Your task to perform on an android device: delete location history Image 0: 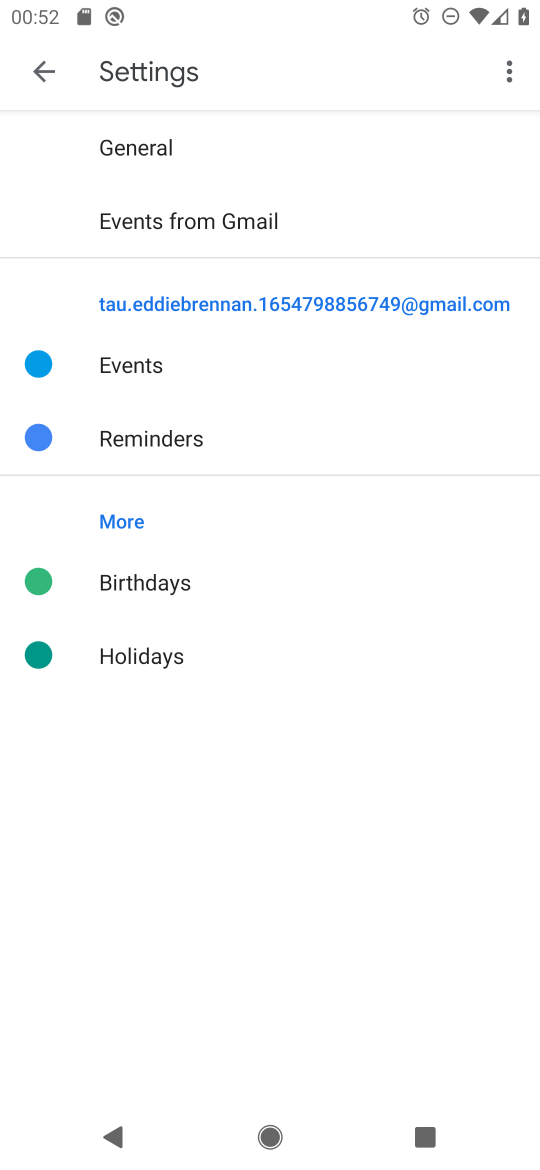
Step 0: press home button
Your task to perform on an android device: delete location history Image 1: 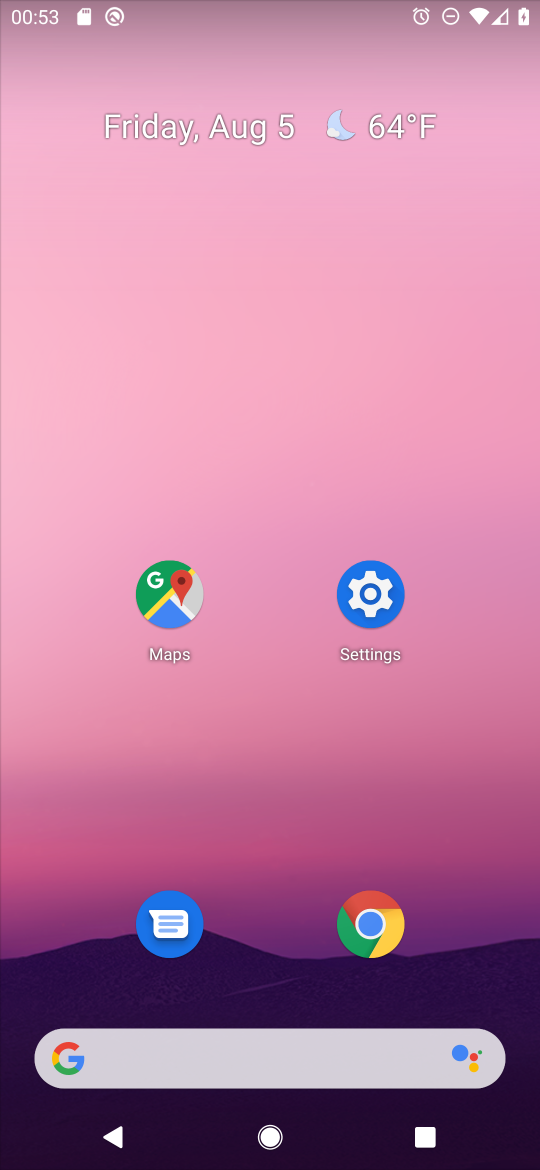
Step 1: click (166, 598)
Your task to perform on an android device: delete location history Image 2: 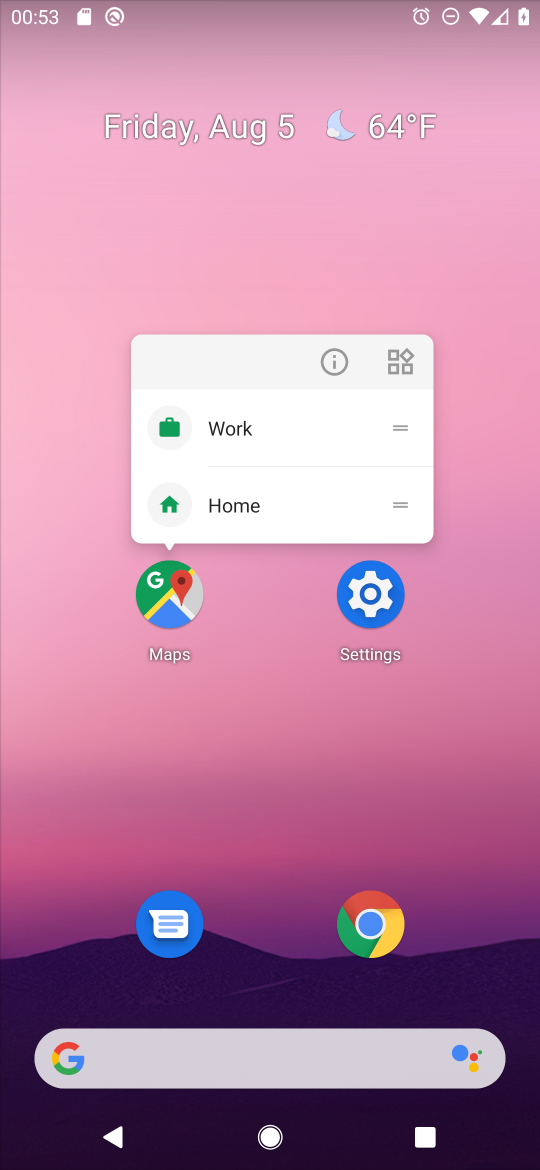
Step 2: click (166, 598)
Your task to perform on an android device: delete location history Image 3: 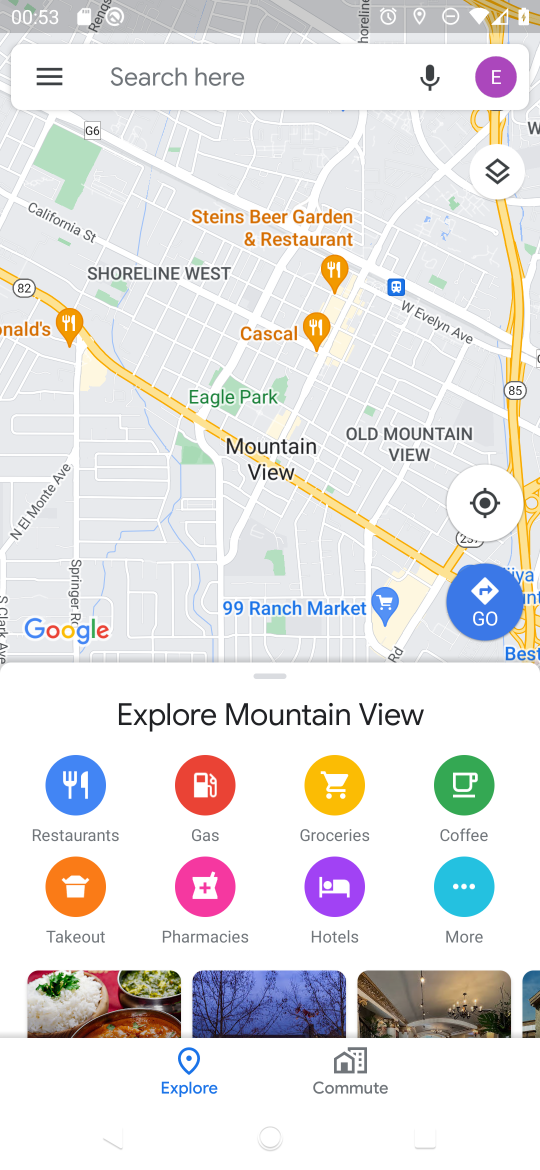
Step 3: click (51, 67)
Your task to perform on an android device: delete location history Image 4: 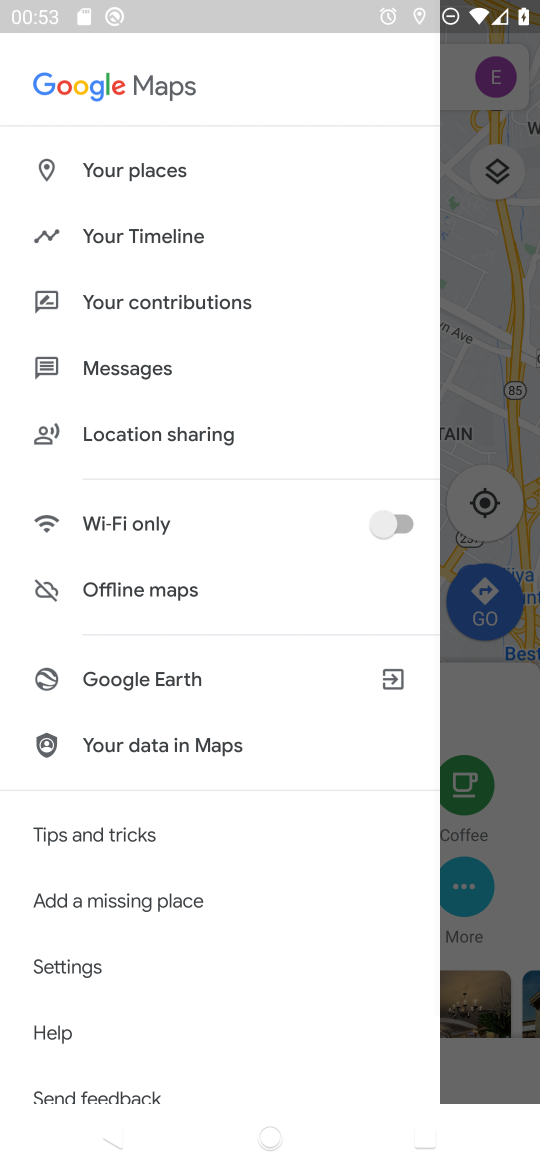
Step 4: click (158, 233)
Your task to perform on an android device: delete location history Image 5: 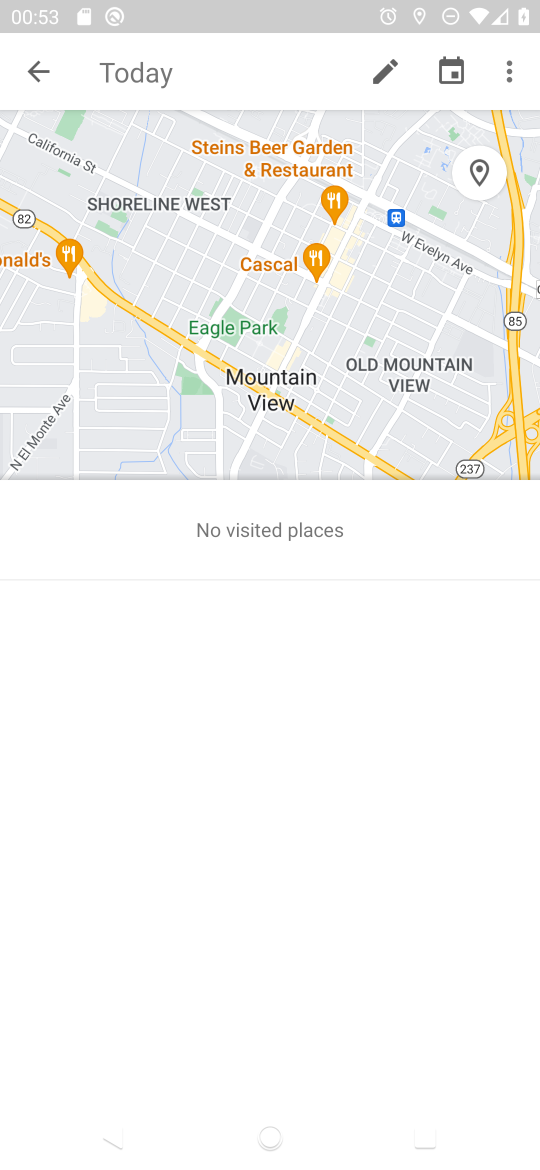
Step 5: click (511, 76)
Your task to perform on an android device: delete location history Image 6: 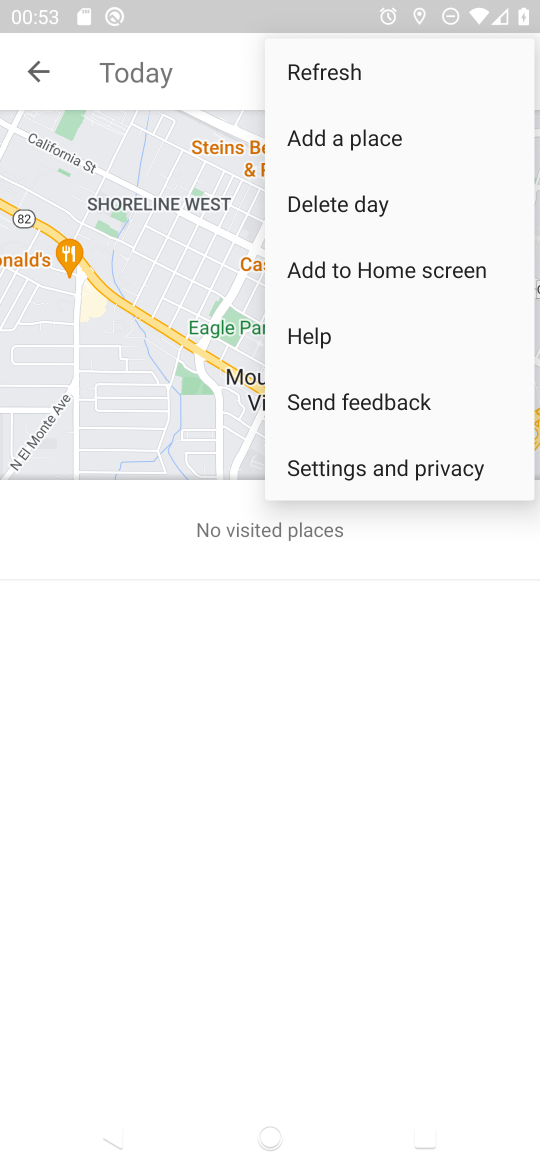
Step 6: click (375, 457)
Your task to perform on an android device: delete location history Image 7: 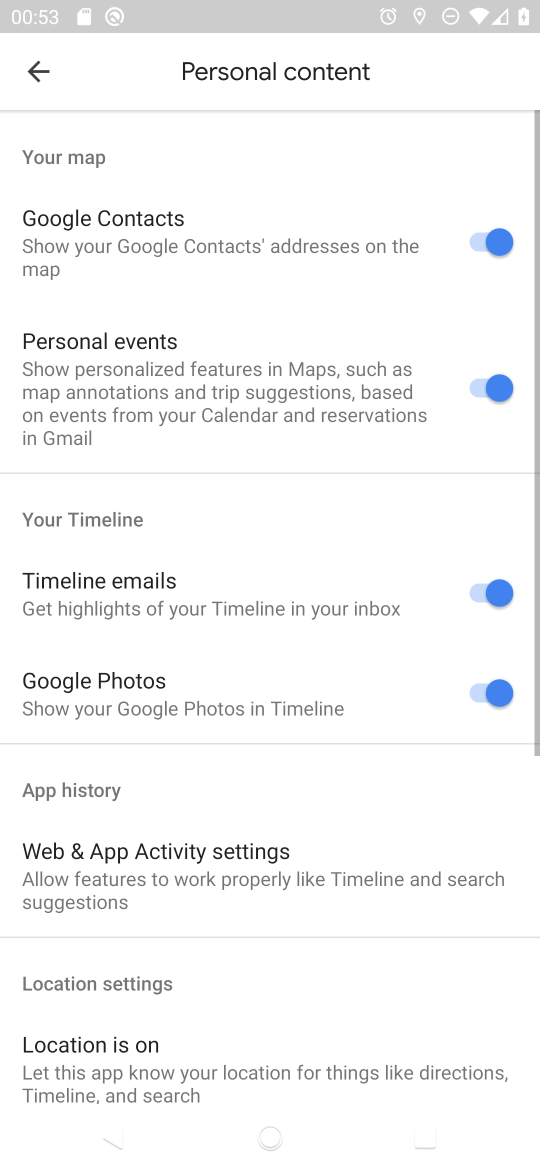
Step 7: drag from (259, 936) to (397, 209)
Your task to perform on an android device: delete location history Image 8: 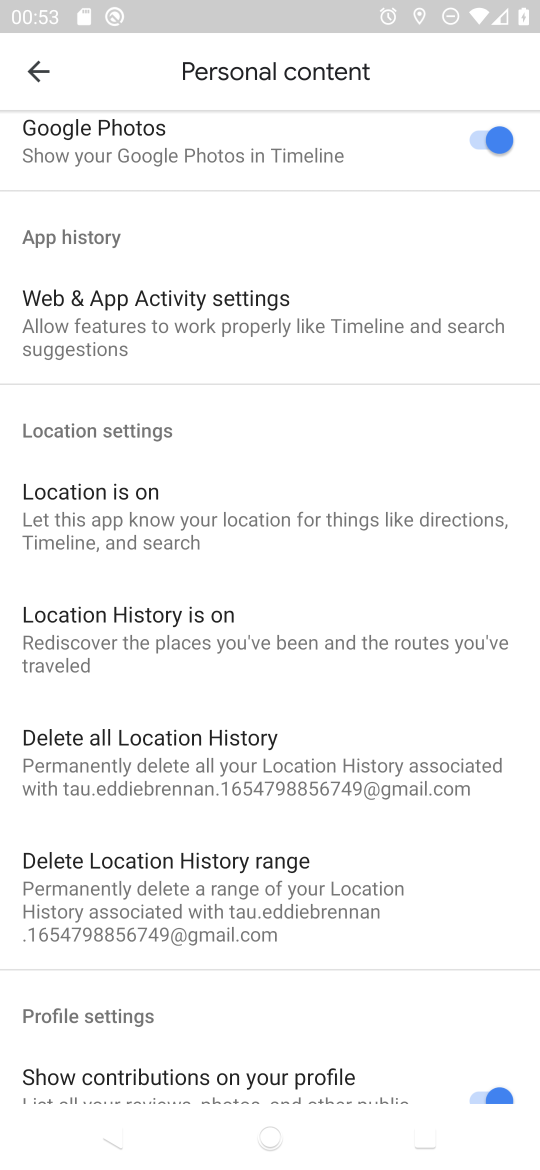
Step 8: click (155, 754)
Your task to perform on an android device: delete location history Image 9: 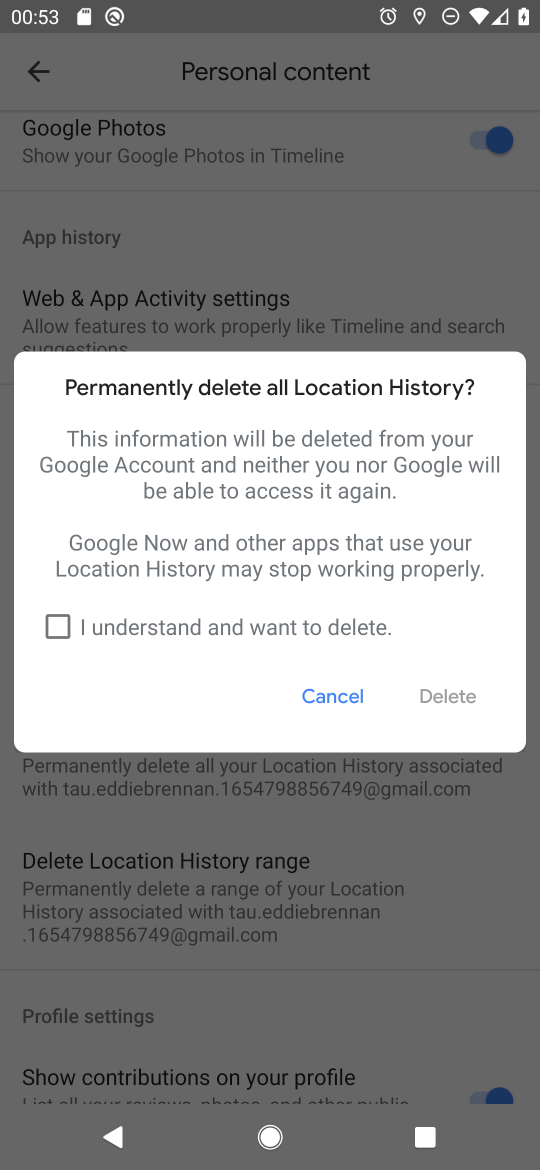
Step 9: click (59, 625)
Your task to perform on an android device: delete location history Image 10: 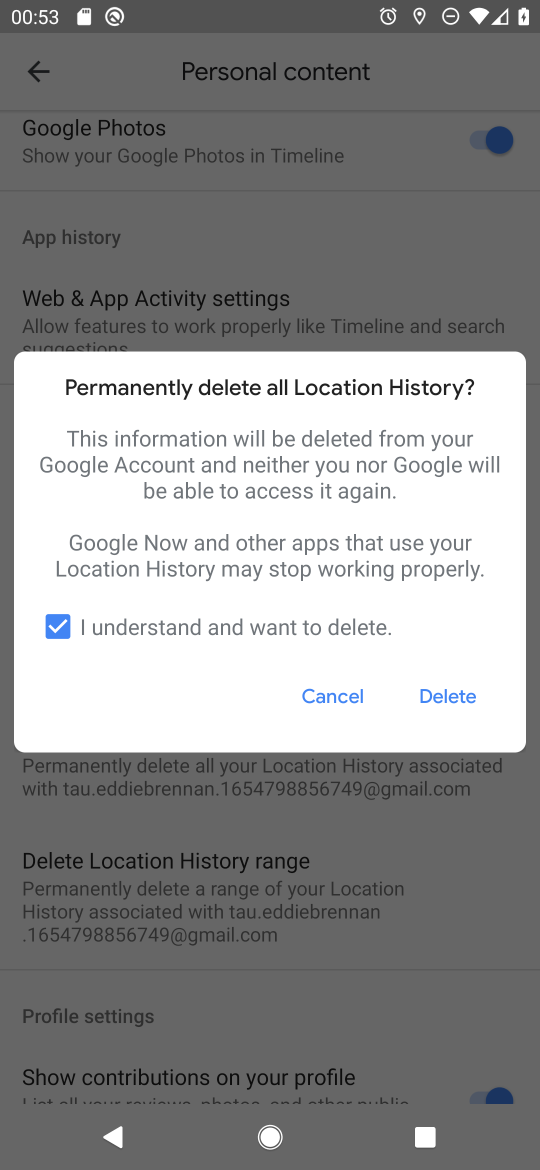
Step 10: click (468, 704)
Your task to perform on an android device: delete location history Image 11: 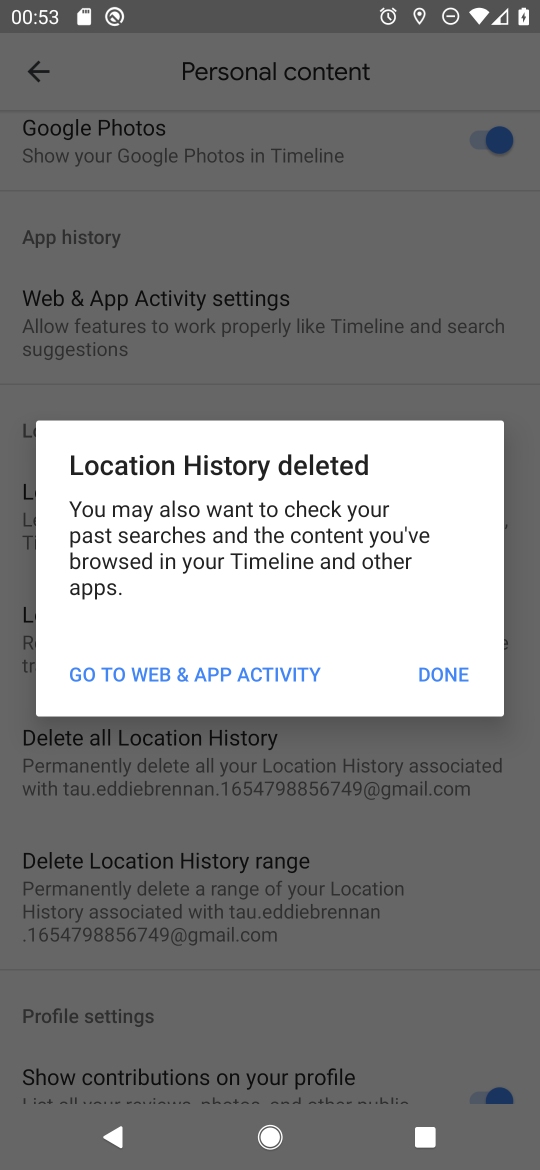
Step 11: click (464, 680)
Your task to perform on an android device: delete location history Image 12: 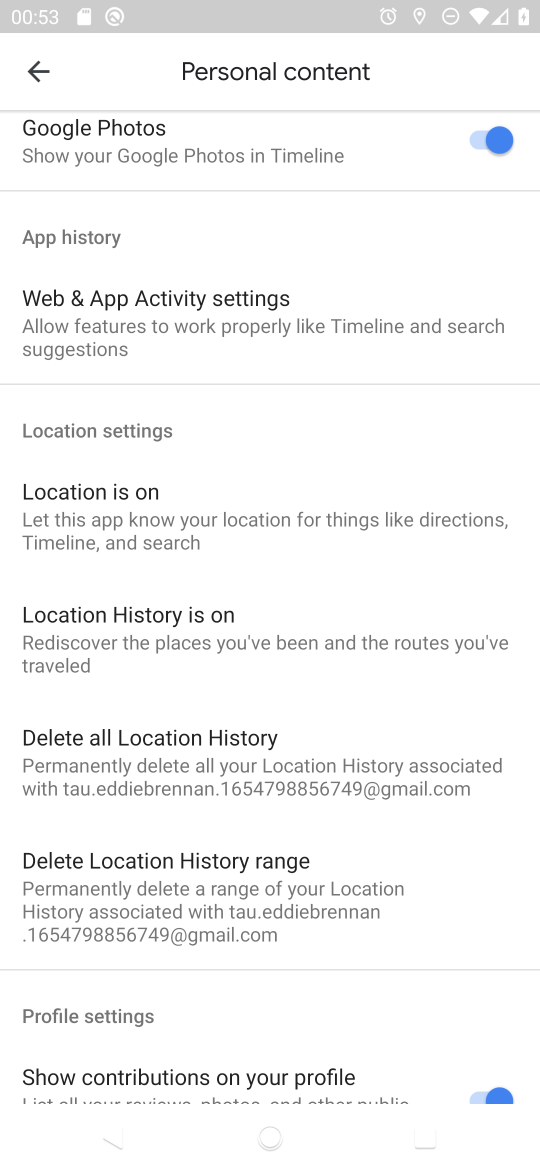
Step 12: task complete